Your task to perform on an android device: Open the phone app and click the voicemail tab. Image 0: 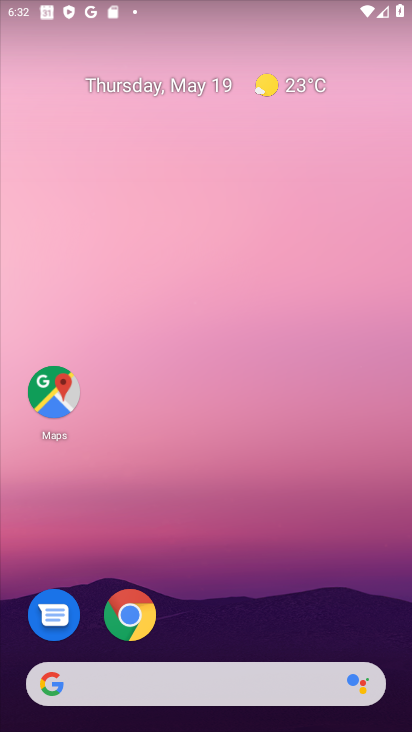
Step 0: drag from (339, 629) to (319, 19)
Your task to perform on an android device: Open the phone app and click the voicemail tab. Image 1: 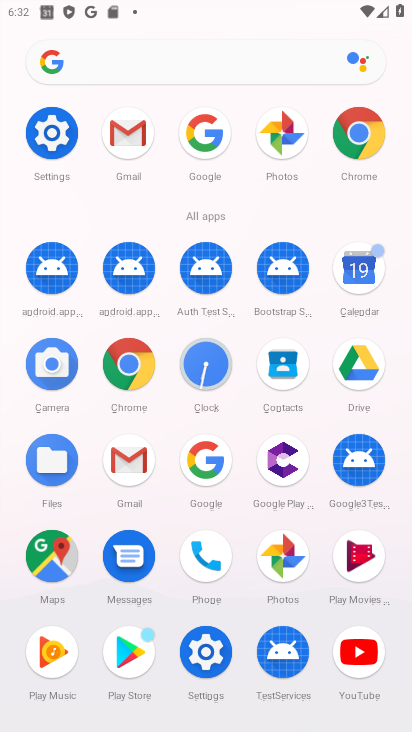
Step 1: click (207, 558)
Your task to perform on an android device: Open the phone app and click the voicemail tab. Image 2: 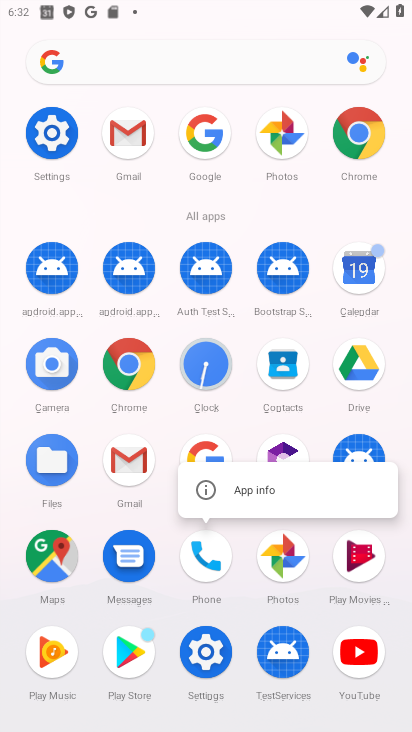
Step 2: click (207, 558)
Your task to perform on an android device: Open the phone app and click the voicemail tab. Image 3: 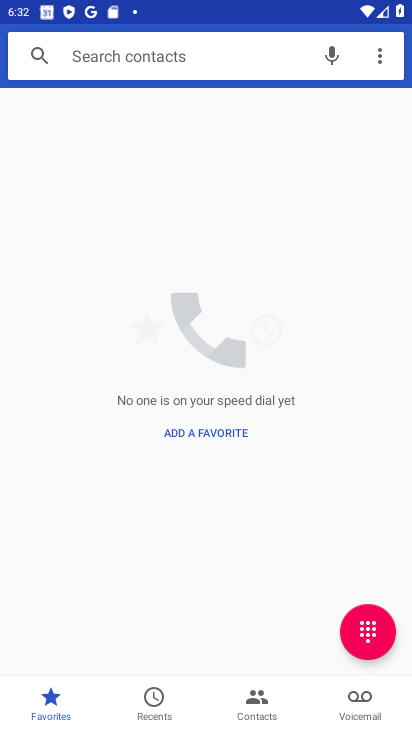
Step 3: click (369, 722)
Your task to perform on an android device: Open the phone app and click the voicemail tab. Image 4: 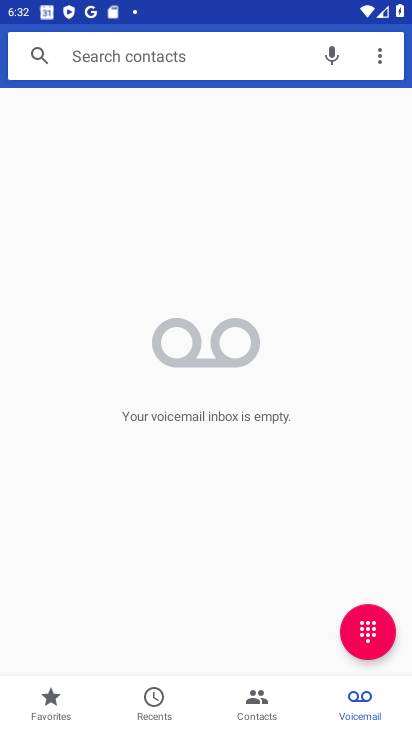
Step 4: task complete